Your task to perform on an android device: Do I have any events this weekend? Image 0: 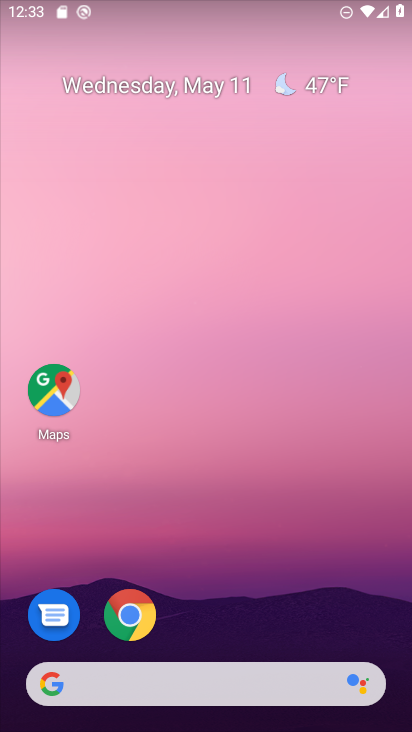
Step 0: drag from (290, 608) to (219, 159)
Your task to perform on an android device: Do I have any events this weekend? Image 1: 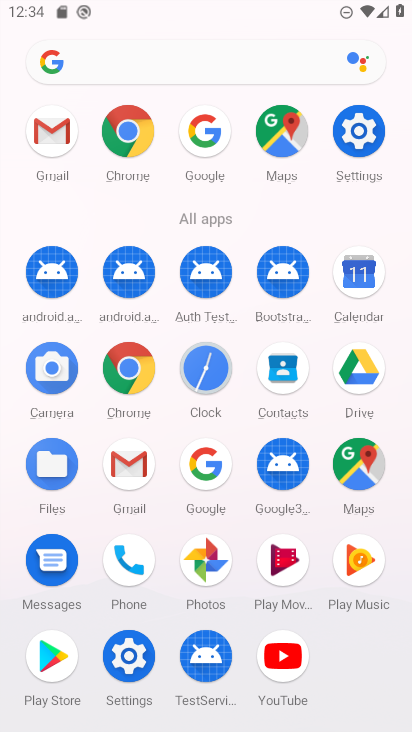
Step 1: press home button
Your task to perform on an android device: Do I have any events this weekend? Image 2: 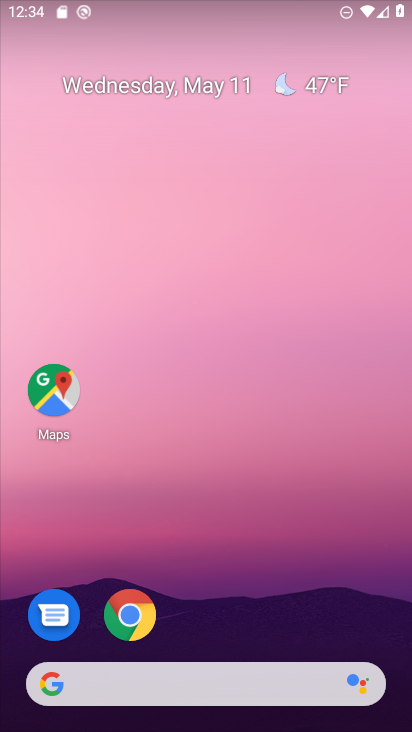
Step 2: drag from (297, 571) to (209, 107)
Your task to perform on an android device: Do I have any events this weekend? Image 3: 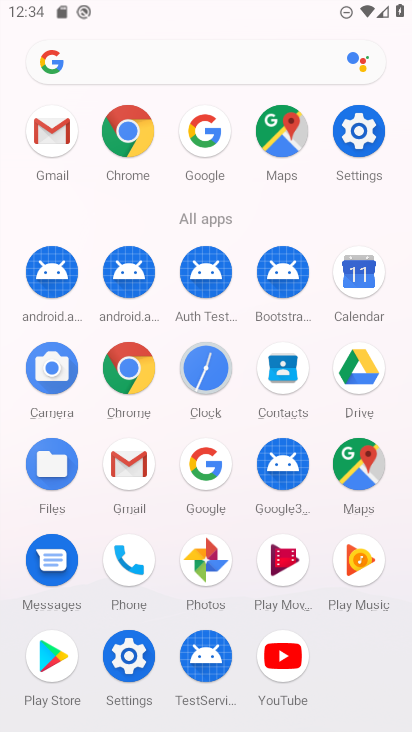
Step 3: click (351, 298)
Your task to perform on an android device: Do I have any events this weekend? Image 4: 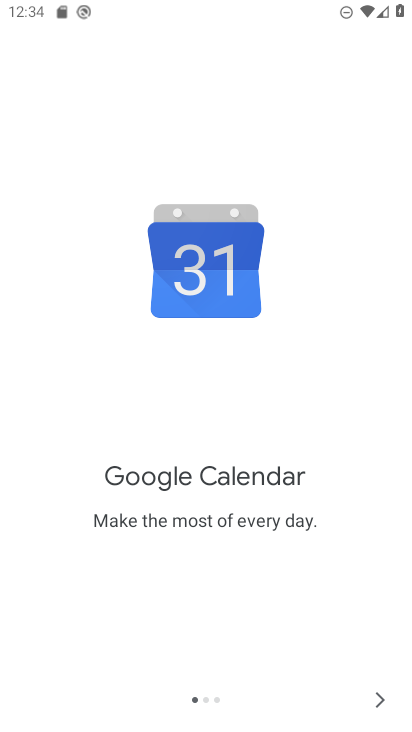
Step 4: click (388, 705)
Your task to perform on an android device: Do I have any events this weekend? Image 5: 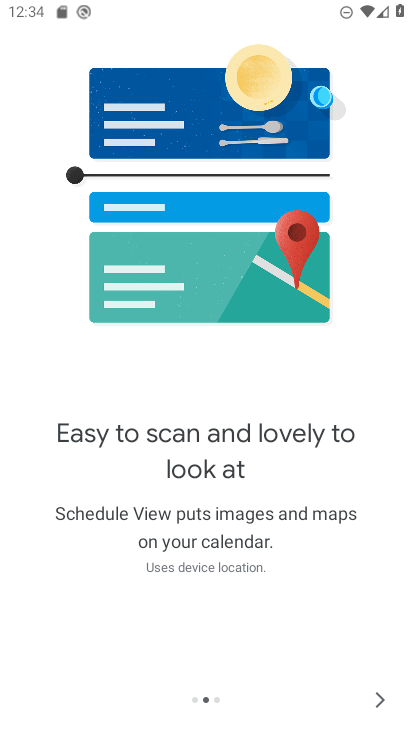
Step 5: click (391, 706)
Your task to perform on an android device: Do I have any events this weekend? Image 6: 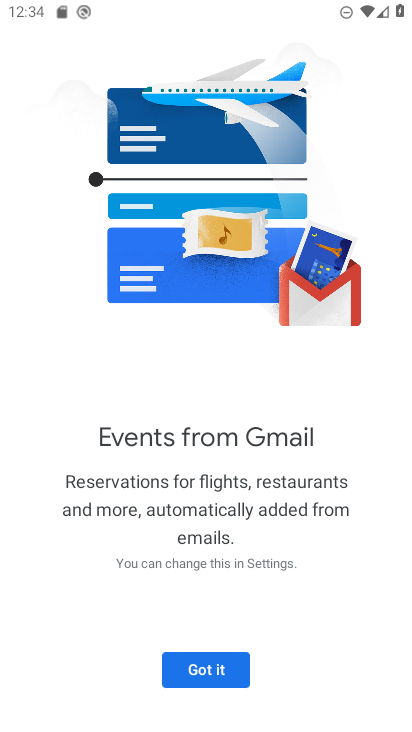
Step 6: click (227, 657)
Your task to perform on an android device: Do I have any events this weekend? Image 7: 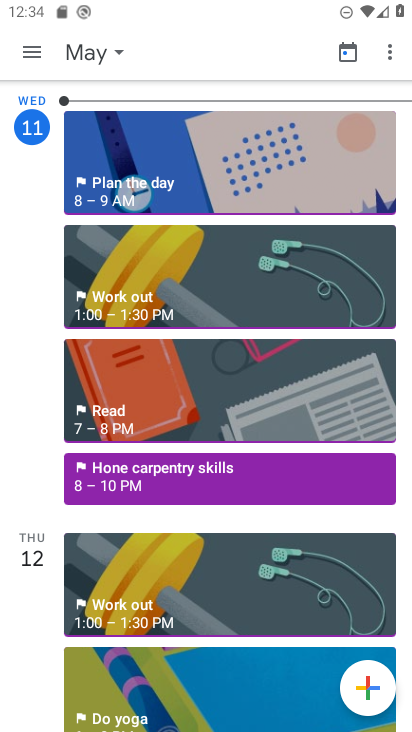
Step 7: click (89, 81)
Your task to perform on an android device: Do I have any events this weekend? Image 8: 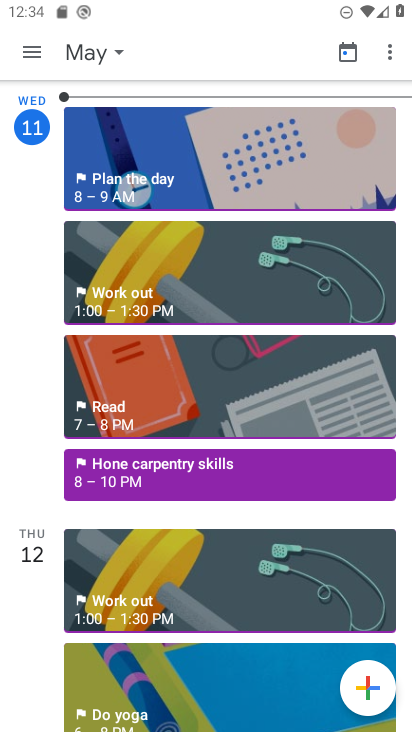
Step 8: click (86, 66)
Your task to perform on an android device: Do I have any events this weekend? Image 9: 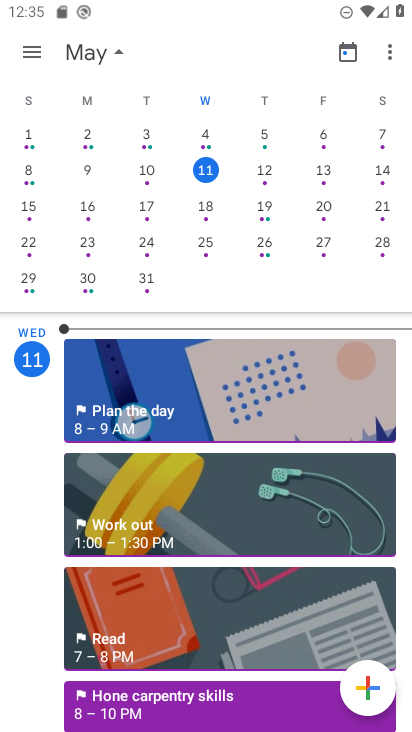
Step 9: click (255, 177)
Your task to perform on an android device: Do I have any events this weekend? Image 10: 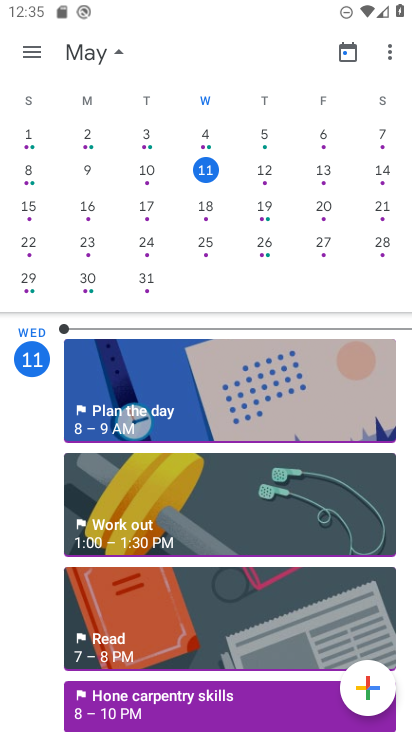
Step 10: click (273, 180)
Your task to perform on an android device: Do I have any events this weekend? Image 11: 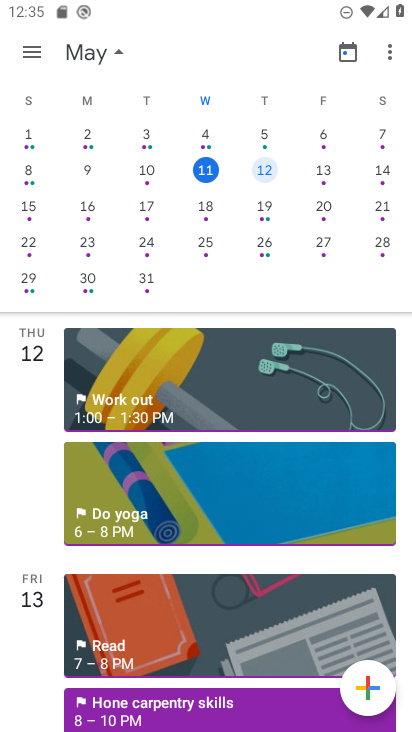
Step 11: task complete